Your task to perform on an android device: Empty the shopping cart on newegg. Add logitech g502 to the cart on newegg, then select checkout. Image 0: 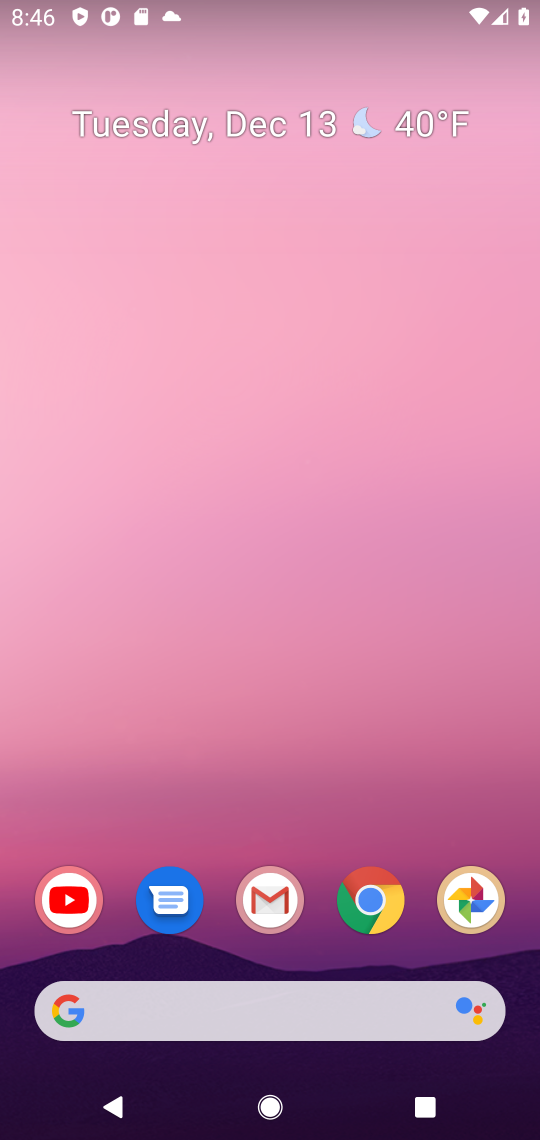
Step 0: click (367, 907)
Your task to perform on an android device: Empty the shopping cart on newegg. Add logitech g502 to the cart on newegg, then select checkout. Image 1: 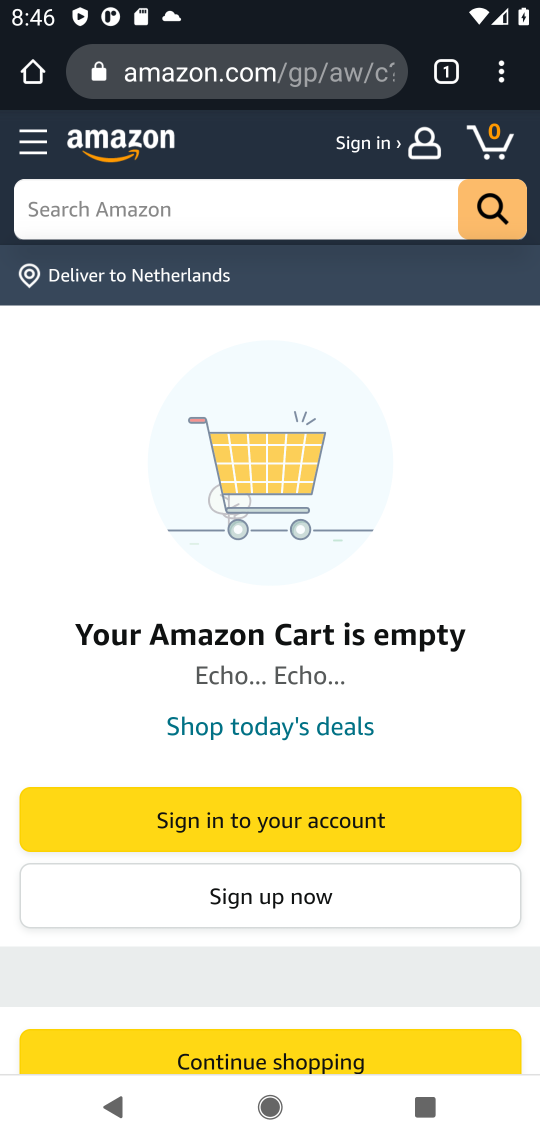
Step 1: click (296, 72)
Your task to perform on an android device: Empty the shopping cart on newegg. Add logitech g502 to the cart on newegg, then select checkout. Image 2: 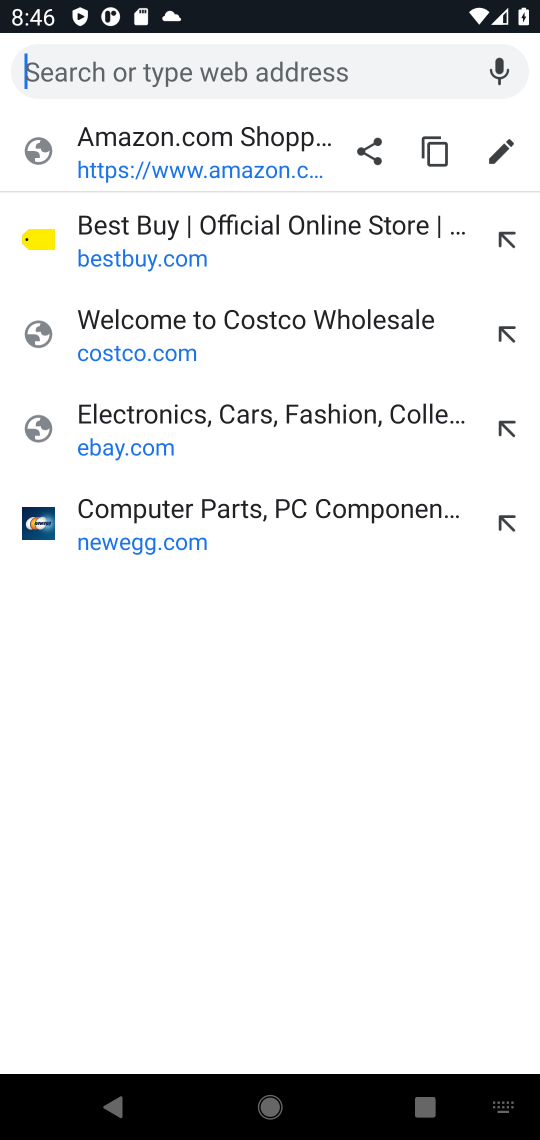
Step 2: click (216, 515)
Your task to perform on an android device: Empty the shopping cart on newegg. Add logitech g502 to the cart on newegg, then select checkout. Image 3: 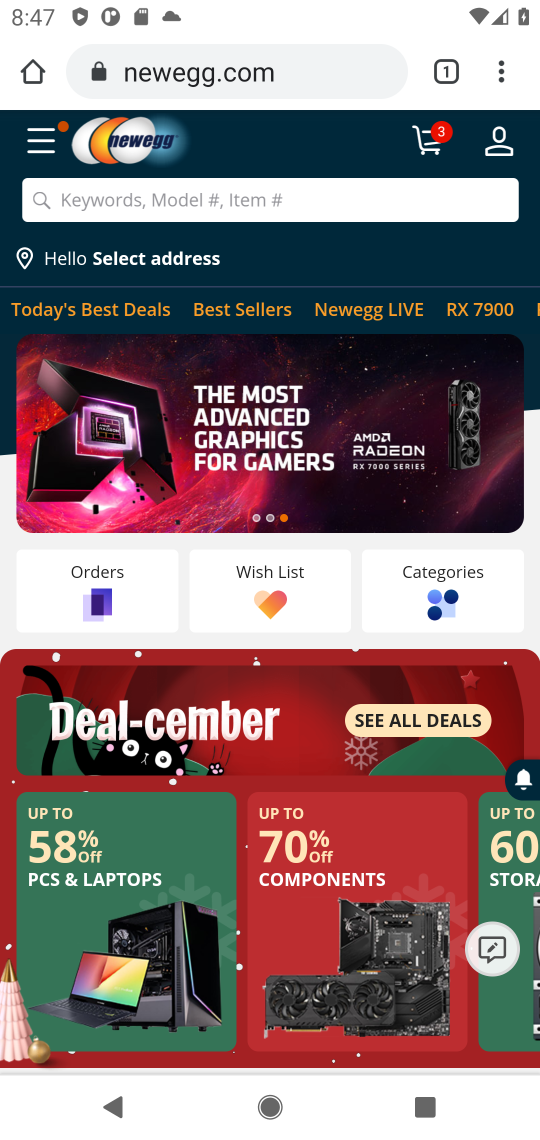
Step 3: click (296, 192)
Your task to perform on an android device: Empty the shopping cart on newegg. Add logitech g502 to the cart on newegg, then select checkout. Image 4: 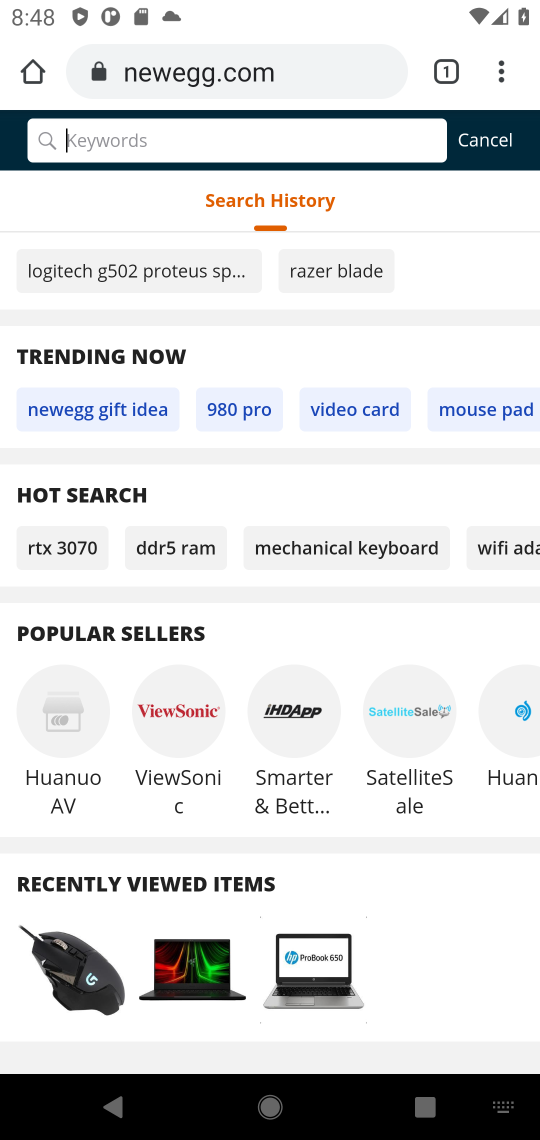
Step 4: type "LOGITECH G502"
Your task to perform on an android device: Empty the shopping cart on newegg. Add logitech g502 to the cart on newegg, then select checkout. Image 5: 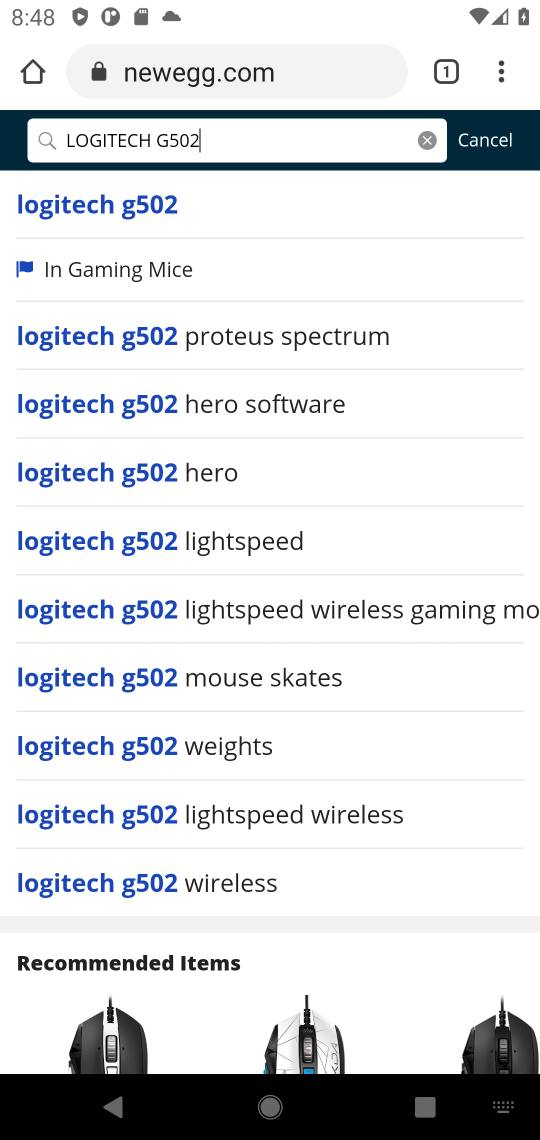
Step 5: click (160, 206)
Your task to perform on an android device: Empty the shopping cart on newegg. Add logitech g502 to the cart on newegg, then select checkout. Image 6: 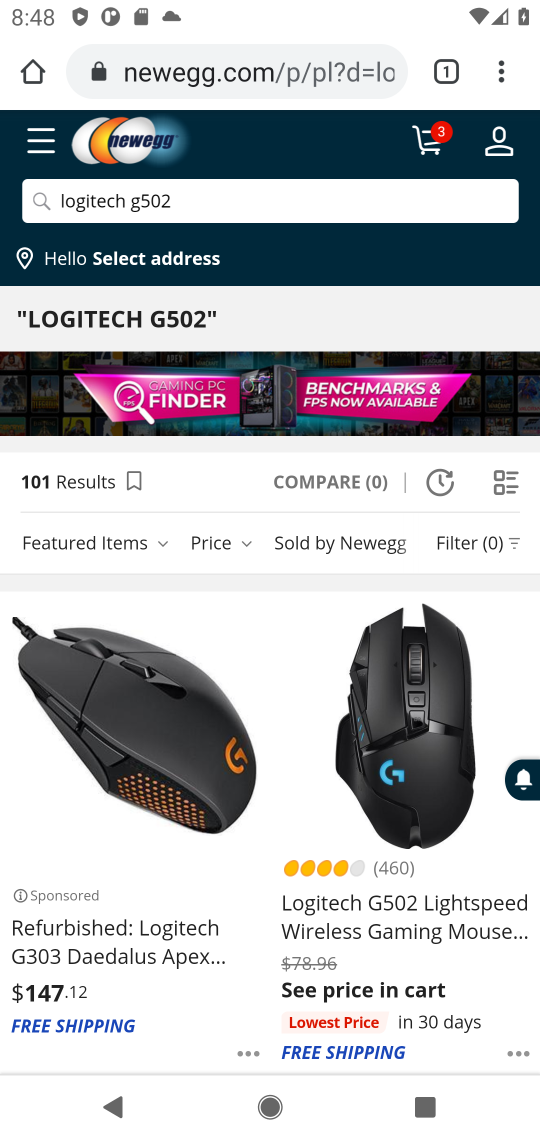
Step 6: click (201, 779)
Your task to perform on an android device: Empty the shopping cart on newegg. Add logitech g502 to the cart on newegg, then select checkout. Image 7: 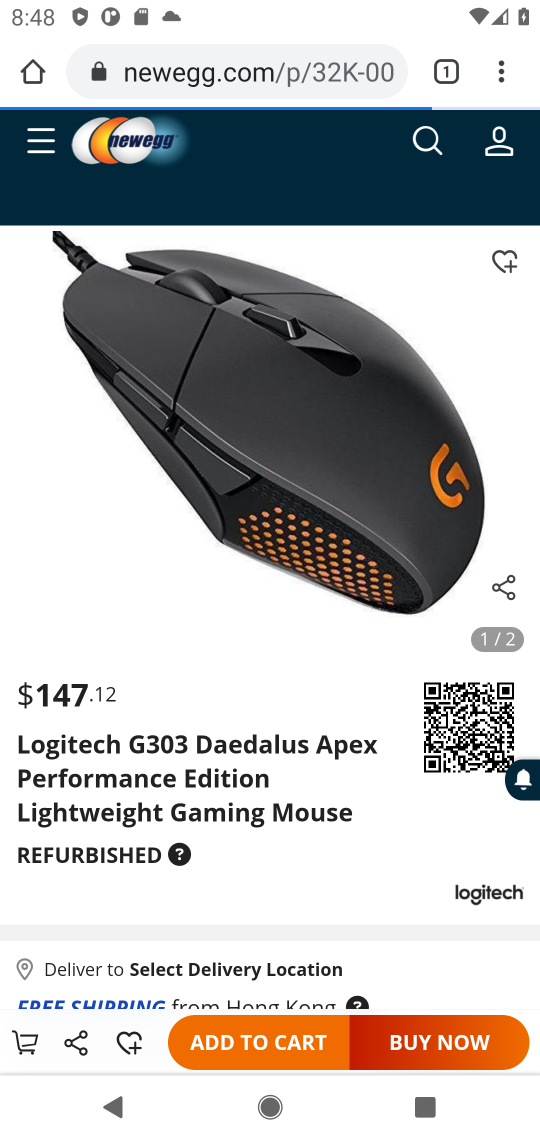
Step 7: click (269, 1048)
Your task to perform on an android device: Empty the shopping cart on newegg. Add logitech g502 to the cart on newegg, then select checkout. Image 8: 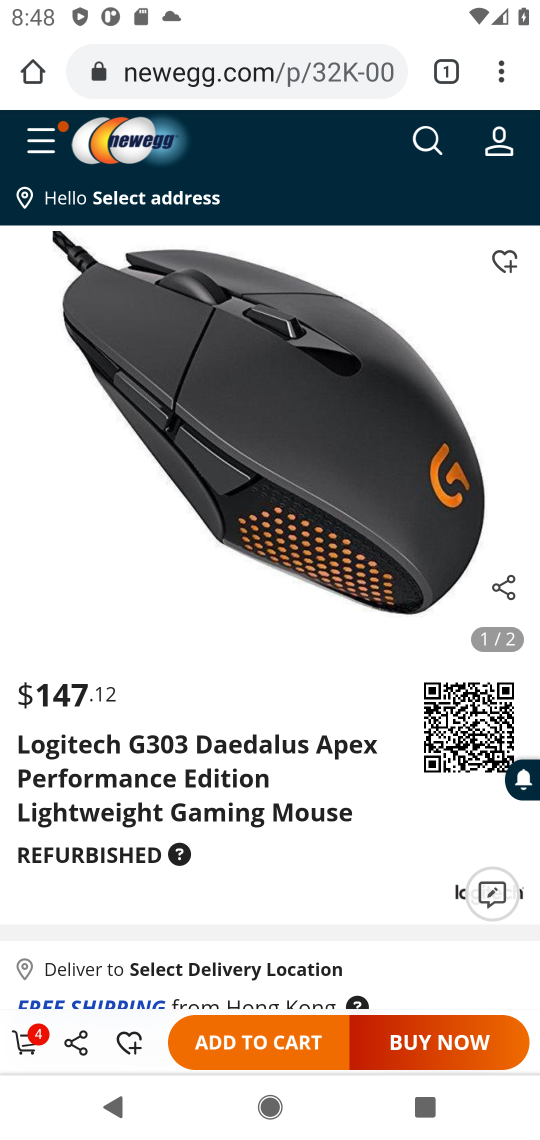
Step 8: click (29, 1045)
Your task to perform on an android device: Empty the shopping cart on newegg. Add logitech g502 to the cart on newegg, then select checkout. Image 9: 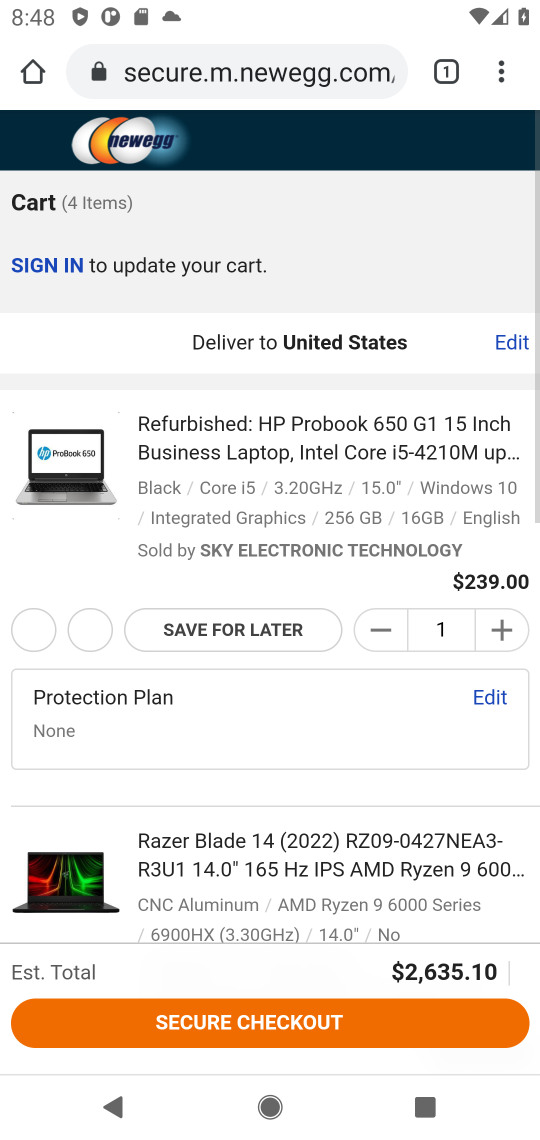
Step 9: click (204, 1021)
Your task to perform on an android device: Empty the shopping cart on newegg. Add logitech g502 to the cart on newegg, then select checkout. Image 10: 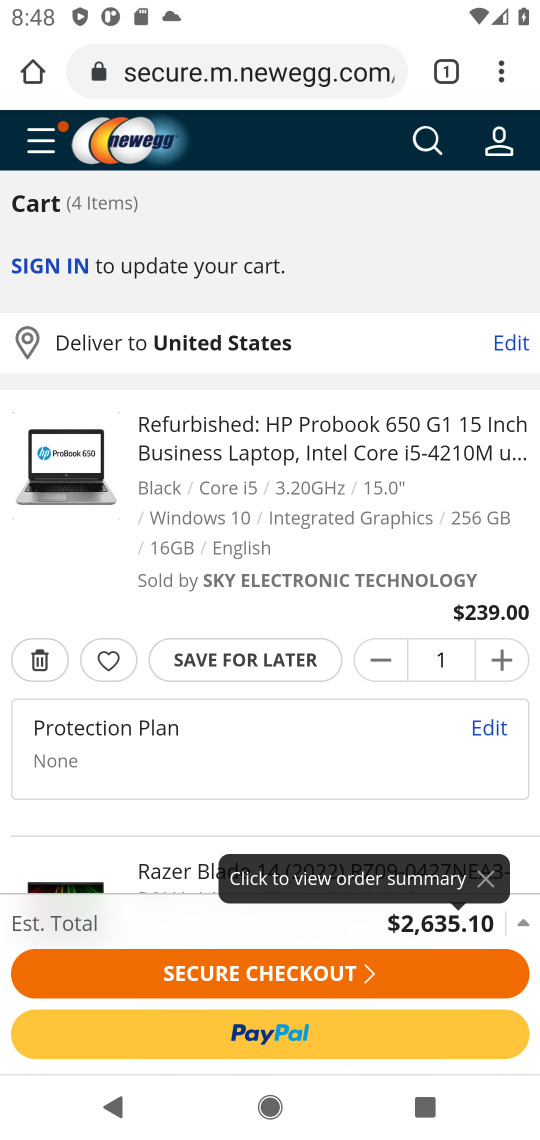
Step 10: task complete